Your task to perform on an android device: What's the weather going to be tomorrow? Image 0: 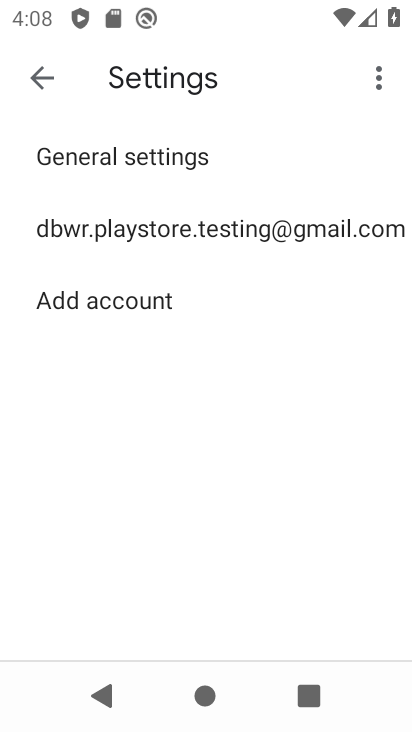
Step 0: press home button
Your task to perform on an android device: What's the weather going to be tomorrow? Image 1: 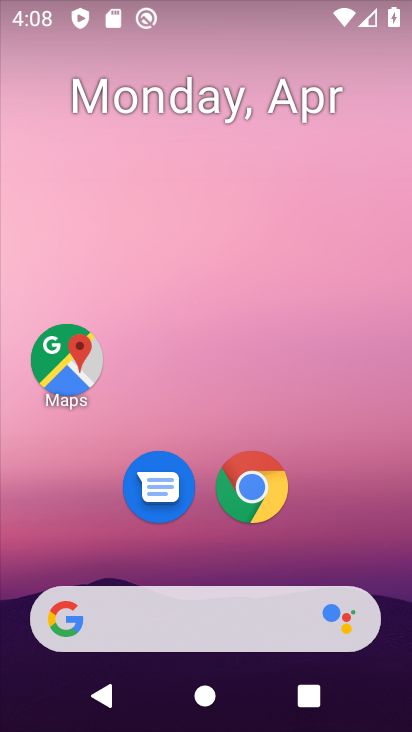
Step 1: click (239, 612)
Your task to perform on an android device: What's the weather going to be tomorrow? Image 2: 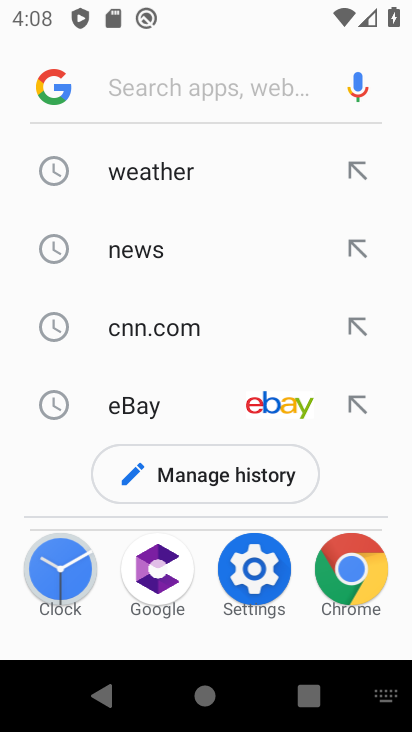
Step 2: click (177, 170)
Your task to perform on an android device: What's the weather going to be tomorrow? Image 3: 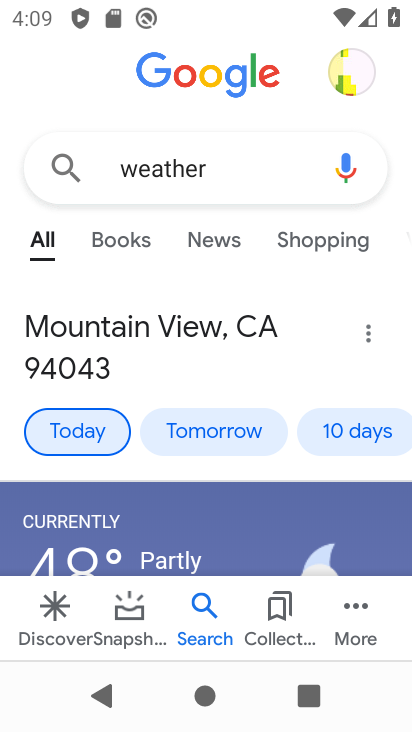
Step 3: click (212, 432)
Your task to perform on an android device: What's the weather going to be tomorrow? Image 4: 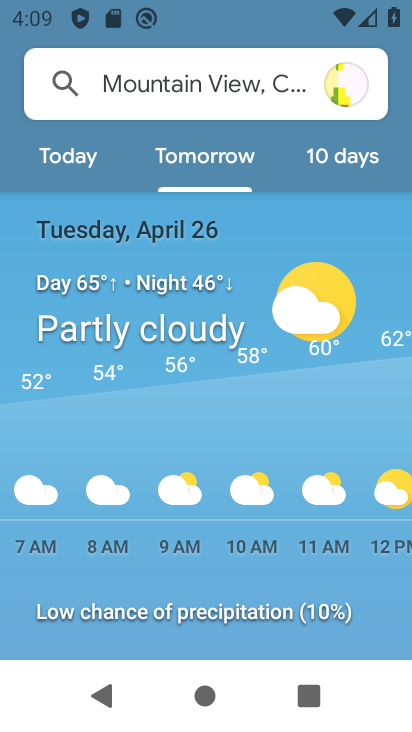
Step 4: task complete